Your task to perform on an android device: Open Google Maps Image 0: 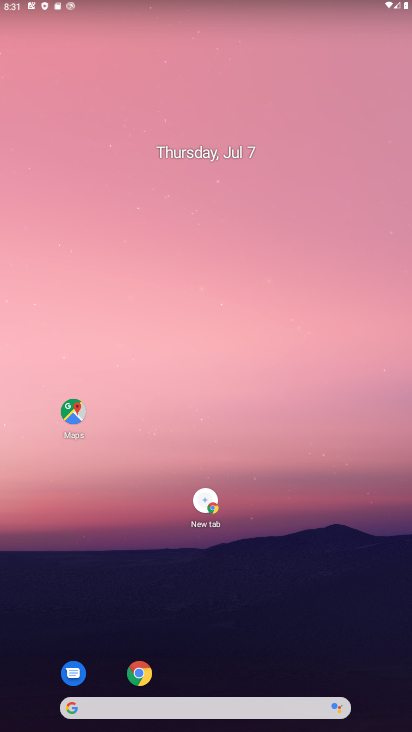
Step 0: click (74, 406)
Your task to perform on an android device: Open Google Maps Image 1: 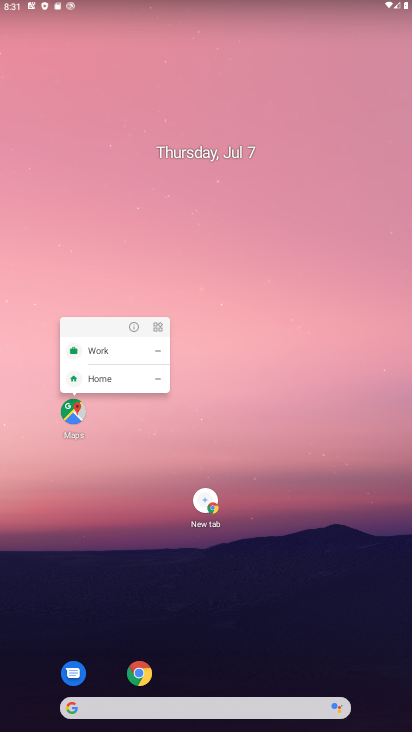
Step 1: click (67, 413)
Your task to perform on an android device: Open Google Maps Image 2: 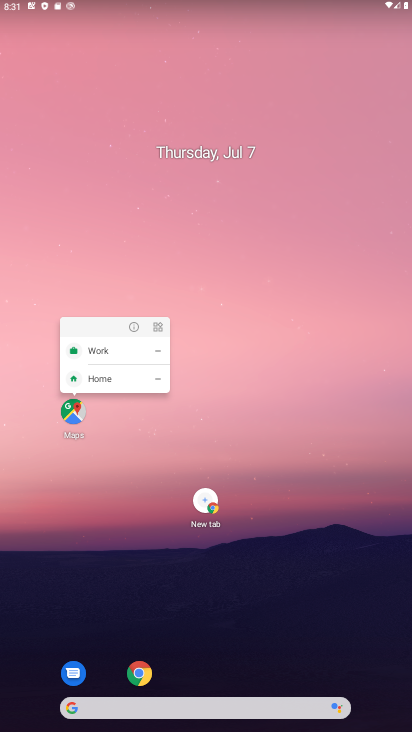
Step 2: click (67, 413)
Your task to perform on an android device: Open Google Maps Image 3: 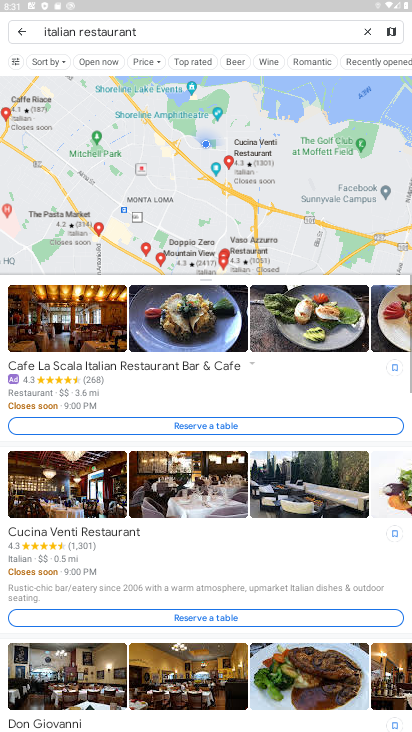
Step 3: task complete